Your task to perform on an android device: Open Android settings Image 0: 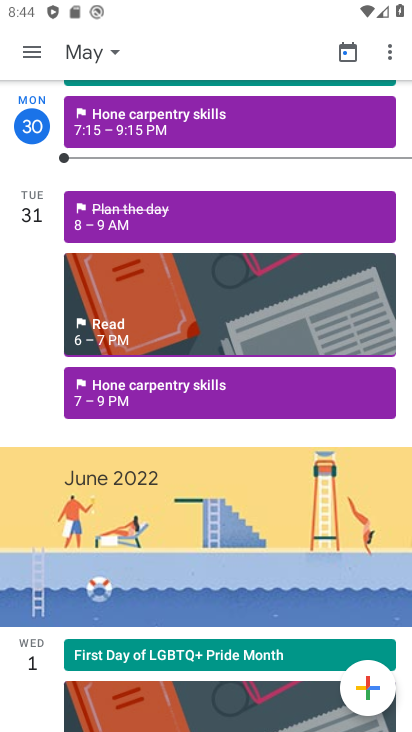
Step 0: press home button
Your task to perform on an android device: Open Android settings Image 1: 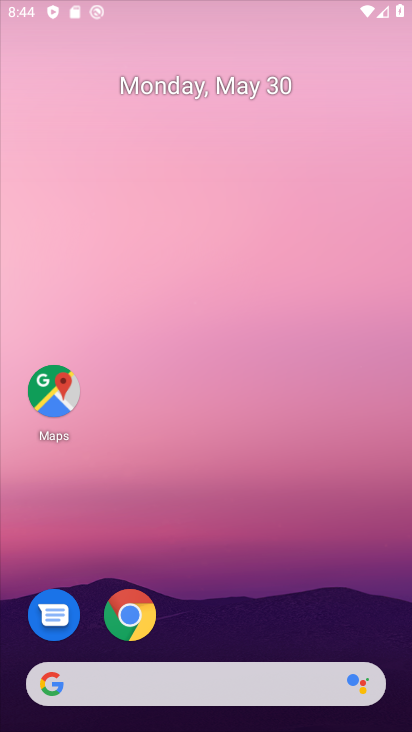
Step 1: drag from (290, 560) to (278, 66)
Your task to perform on an android device: Open Android settings Image 2: 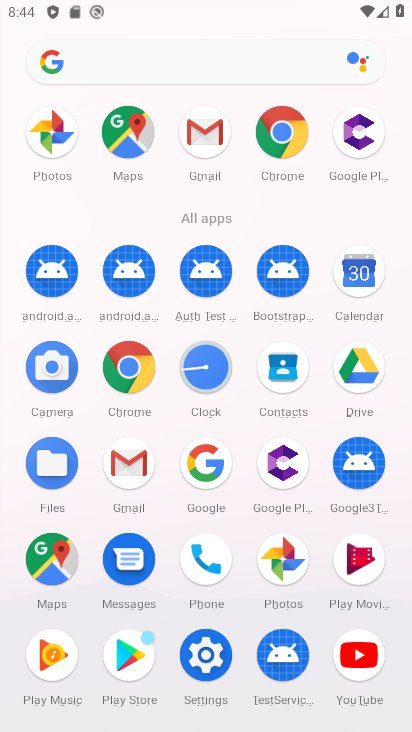
Step 2: click (213, 644)
Your task to perform on an android device: Open Android settings Image 3: 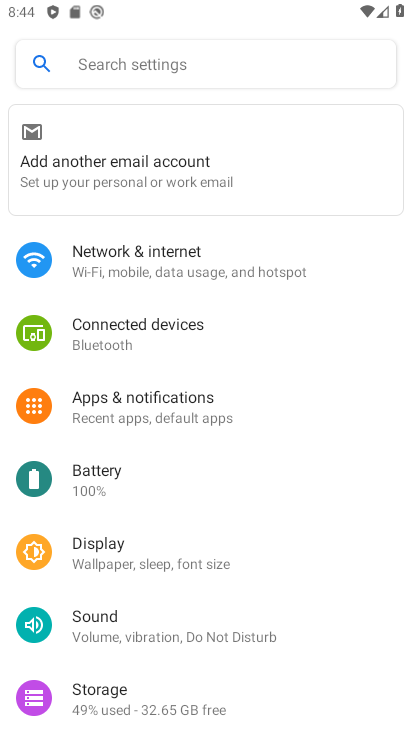
Step 3: drag from (263, 558) to (257, 45)
Your task to perform on an android device: Open Android settings Image 4: 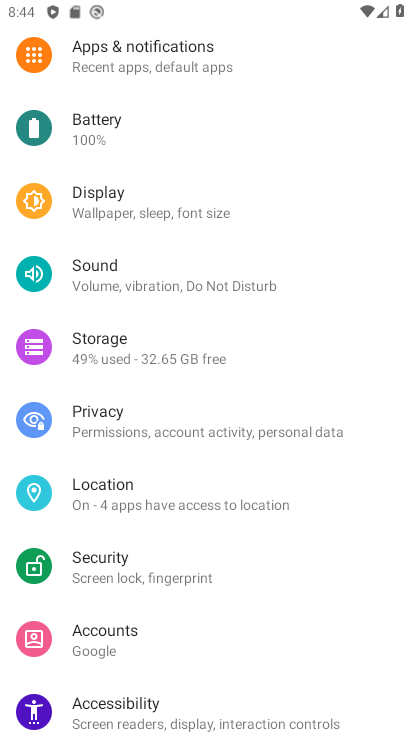
Step 4: drag from (169, 580) to (236, 65)
Your task to perform on an android device: Open Android settings Image 5: 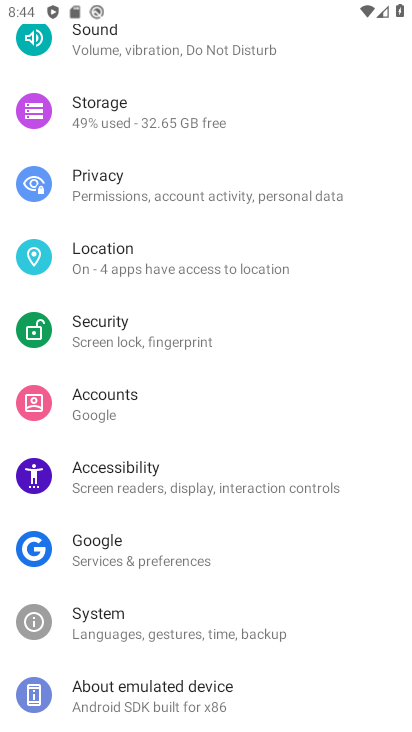
Step 5: click (203, 696)
Your task to perform on an android device: Open Android settings Image 6: 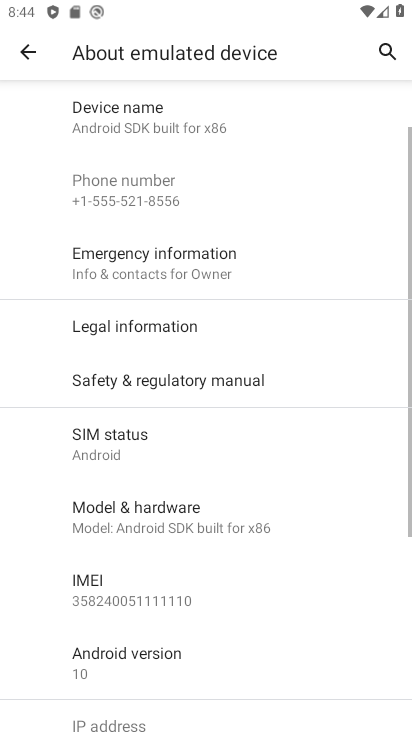
Step 6: drag from (191, 598) to (231, 71)
Your task to perform on an android device: Open Android settings Image 7: 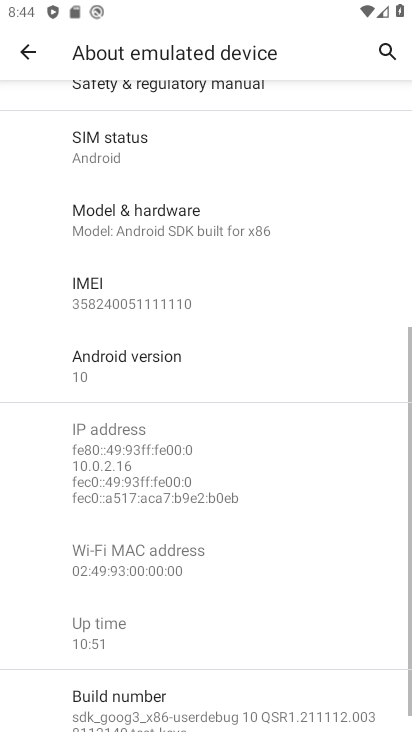
Step 7: click (178, 351)
Your task to perform on an android device: Open Android settings Image 8: 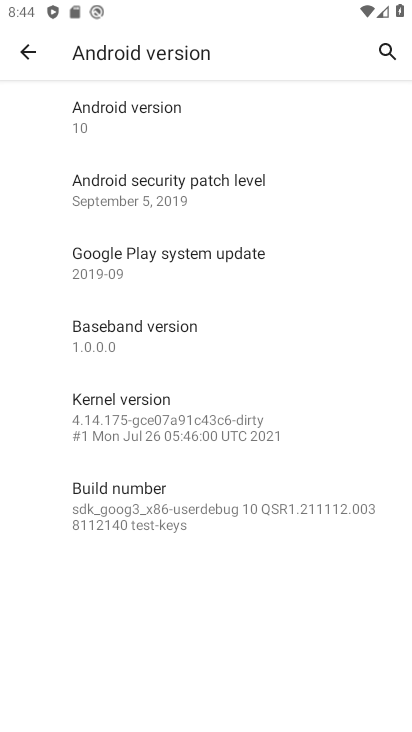
Step 8: task complete